Your task to perform on an android device: check battery use Image 0: 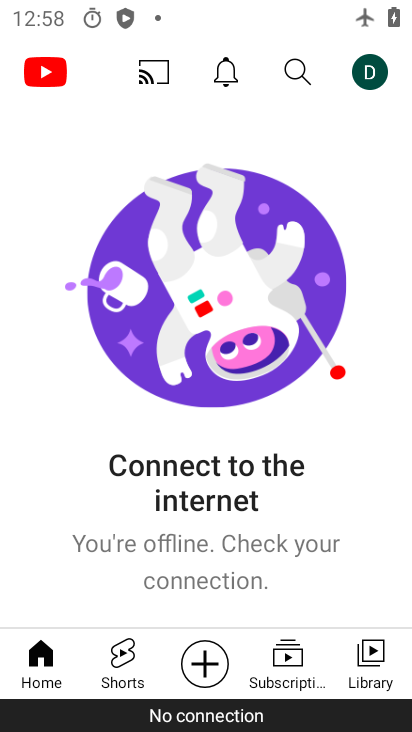
Step 0: press home button
Your task to perform on an android device: check battery use Image 1: 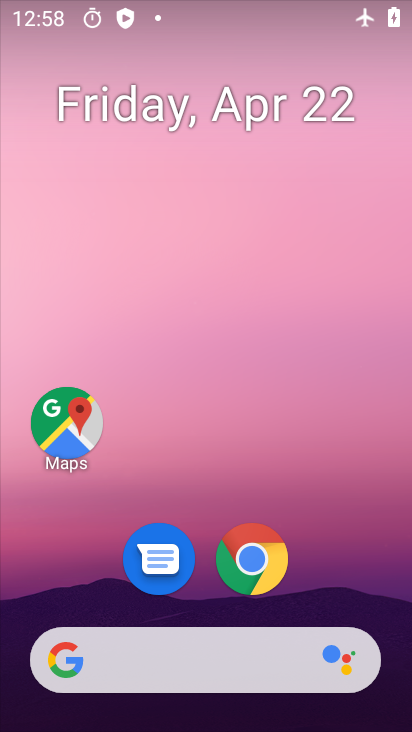
Step 1: drag from (344, 544) to (357, 127)
Your task to perform on an android device: check battery use Image 2: 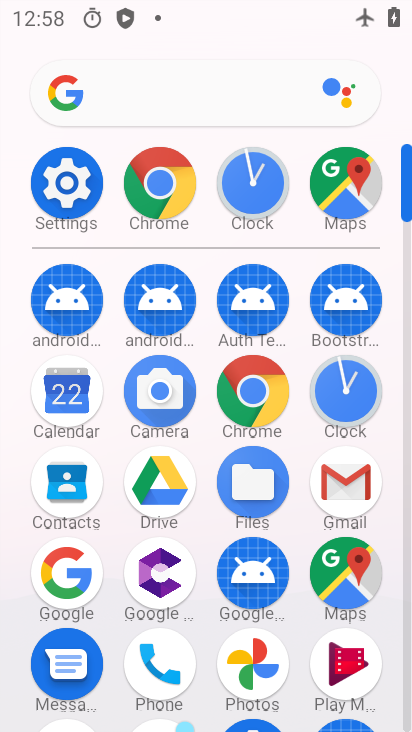
Step 2: click (85, 174)
Your task to perform on an android device: check battery use Image 3: 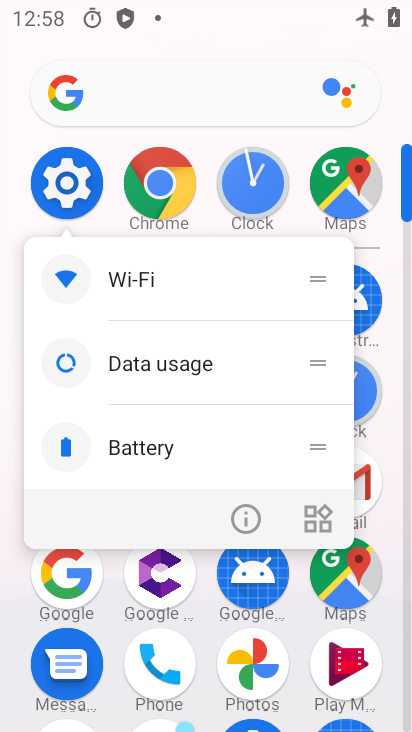
Step 3: click (90, 181)
Your task to perform on an android device: check battery use Image 4: 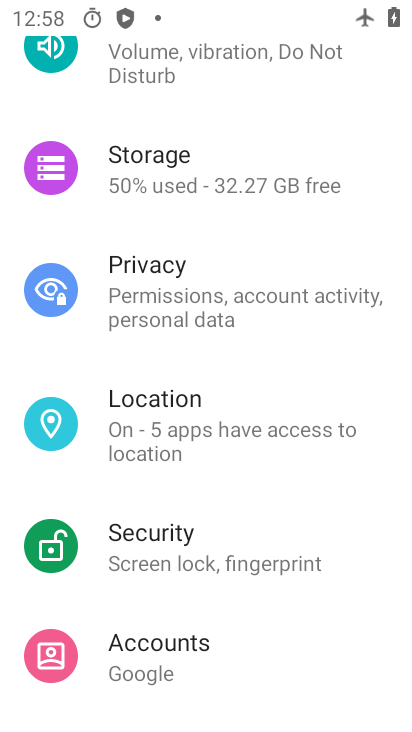
Step 4: drag from (350, 378) to (344, 491)
Your task to perform on an android device: check battery use Image 5: 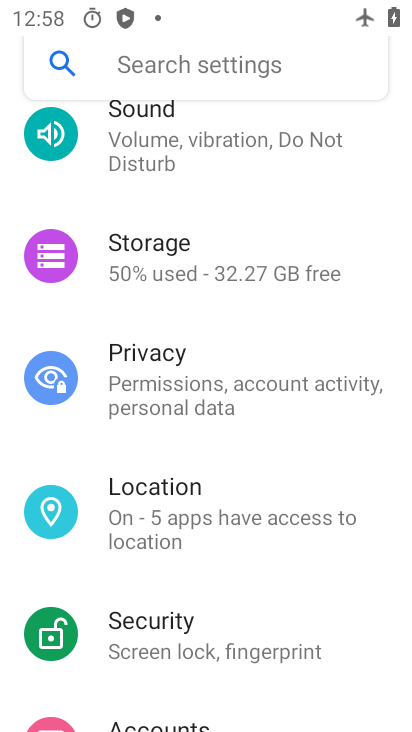
Step 5: drag from (364, 402) to (362, 500)
Your task to perform on an android device: check battery use Image 6: 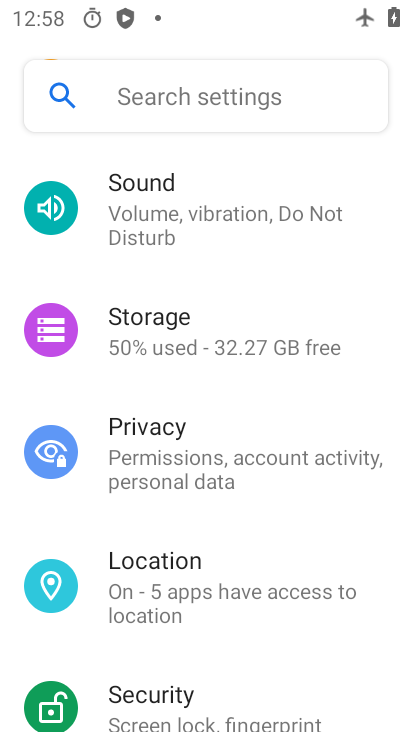
Step 6: drag from (371, 365) to (371, 489)
Your task to perform on an android device: check battery use Image 7: 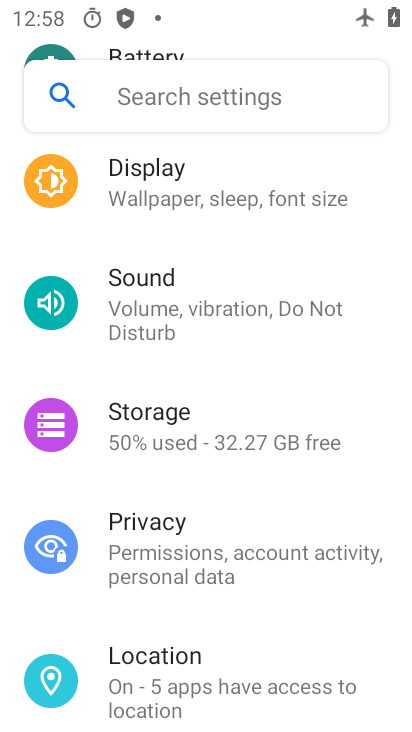
Step 7: drag from (376, 321) to (363, 451)
Your task to perform on an android device: check battery use Image 8: 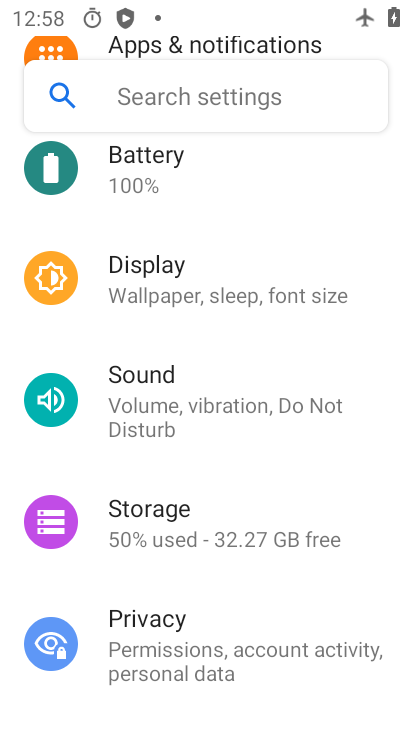
Step 8: drag from (365, 343) to (360, 462)
Your task to perform on an android device: check battery use Image 9: 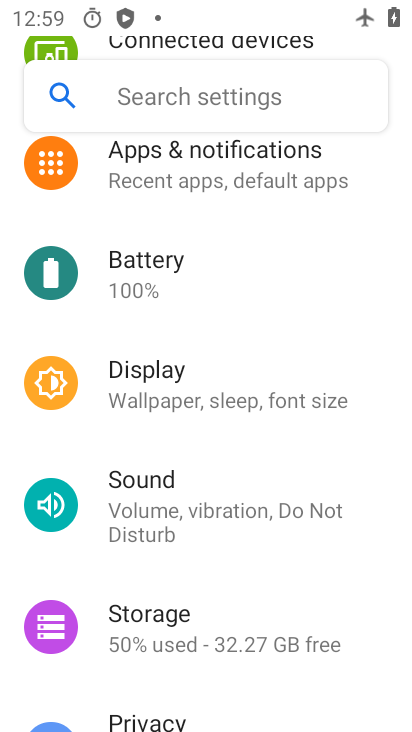
Step 9: drag from (371, 354) to (374, 481)
Your task to perform on an android device: check battery use Image 10: 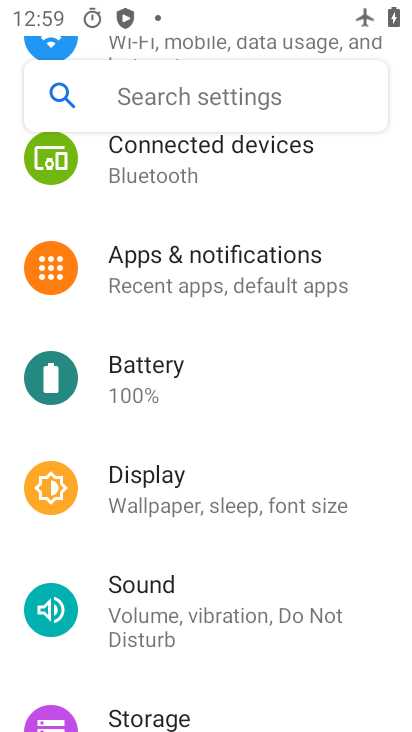
Step 10: drag from (370, 349) to (367, 472)
Your task to perform on an android device: check battery use Image 11: 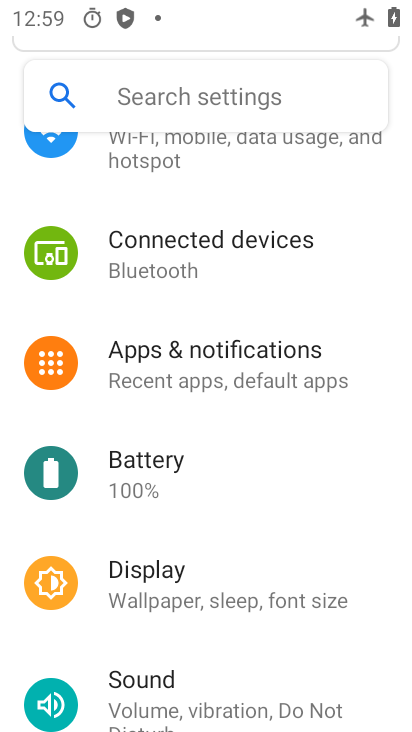
Step 11: drag from (367, 362) to (363, 474)
Your task to perform on an android device: check battery use Image 12: 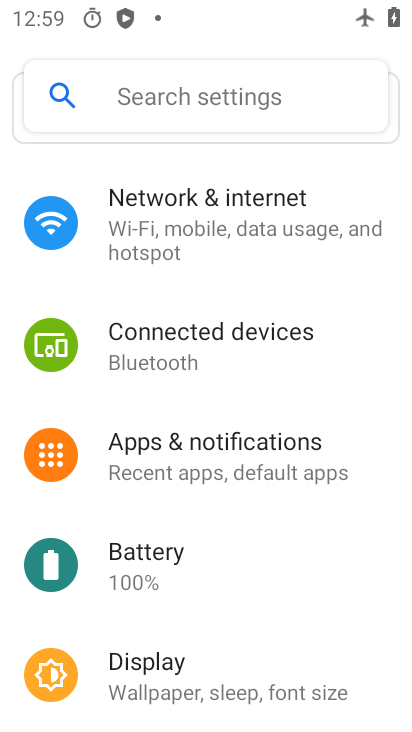
Step 12: drag from (372, 360) to (366, 495)
Your task to perform on an android device: check battery use Image 13: 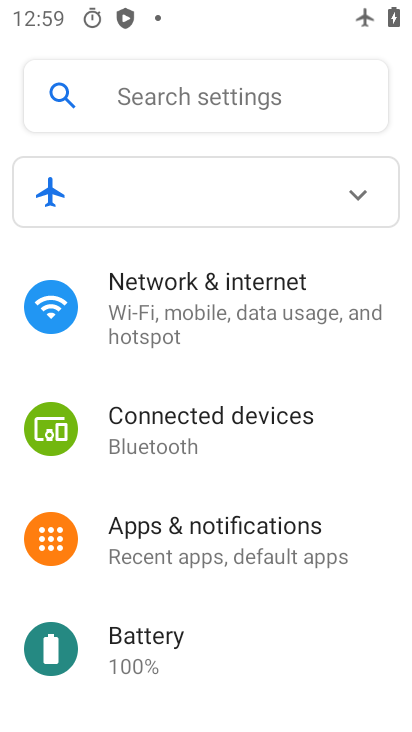
Step 13: drag from (359, 386) to (356, 473)
Your task to perform on an android device: check battery use Image 14: 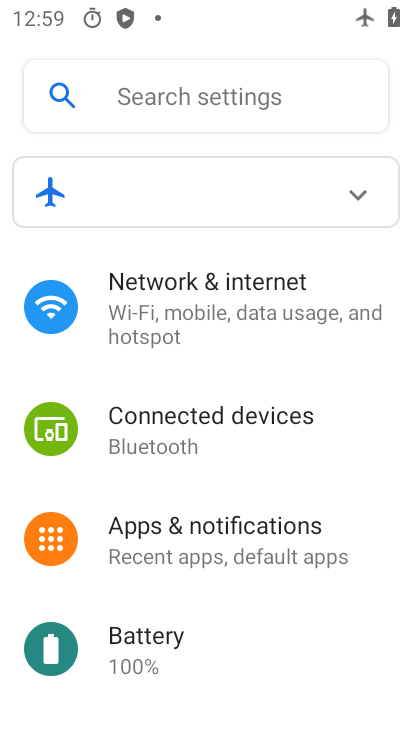
Step 14: click (189, 658)
Your task to perform on an android device: check battery use Image 15: 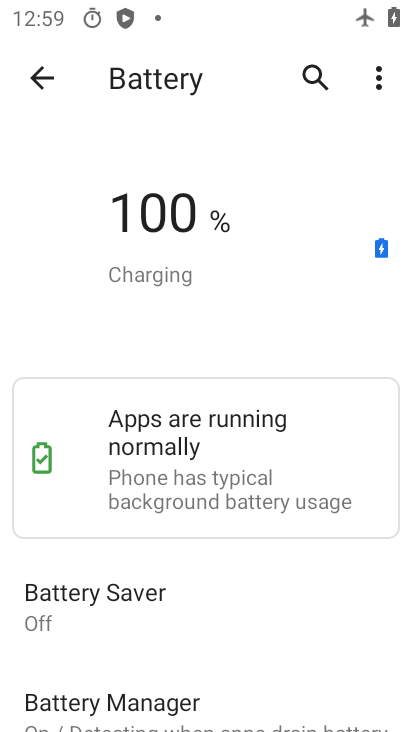
Step 15: click (380, 85)
Your task to perform on an android device: check battery use Image 16: 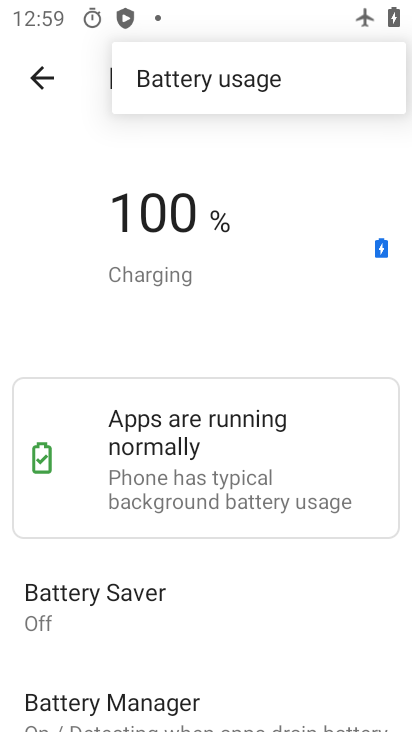
Step 16: click (298, 77)
Your task to perform on an android device: check battery use Image 17: 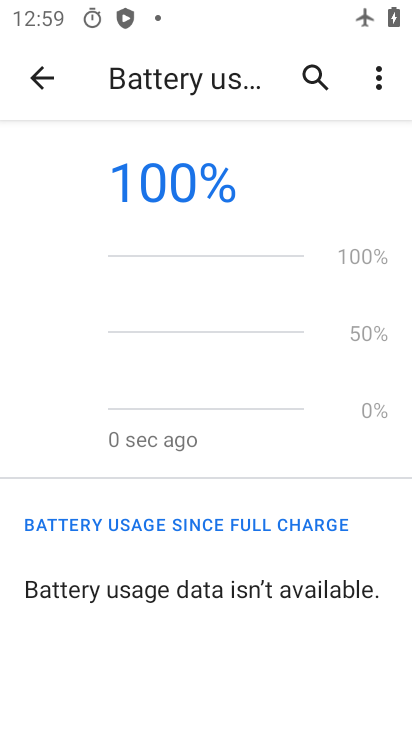
Step 17: task complete